Your task to perform on an android device: make emails show in primary in the gmail app Image 0: 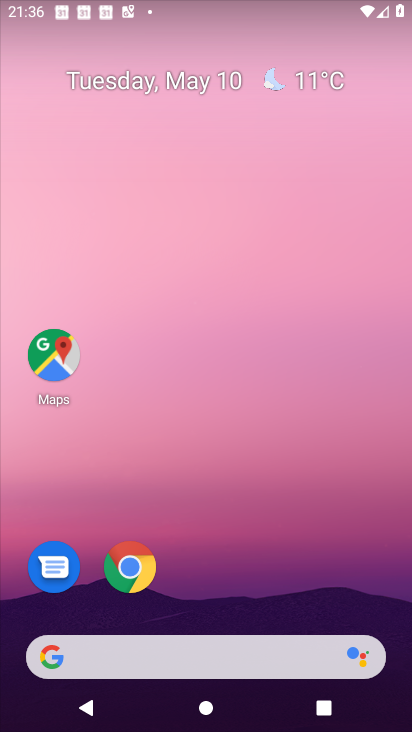
Step 0: drag from (219, 512) to (252, 286)
Your task to perform on an android device: make emails show in primary in the gmail app Image 1: 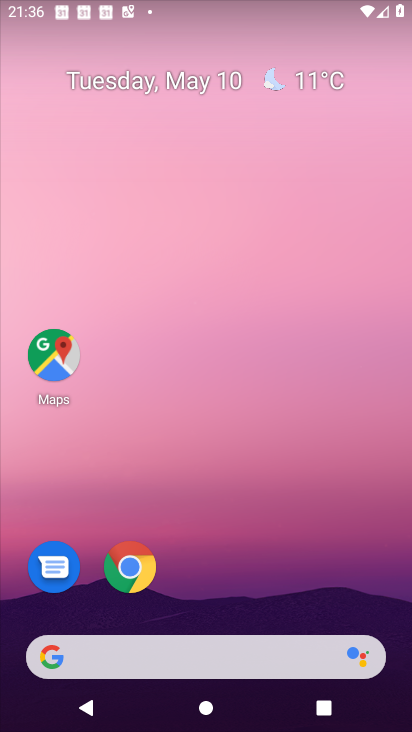
Step 1: drag from (212, 588) to (228, 276)
Your task to perform on an android device: make emails show in primary in the gmail app Image 2: 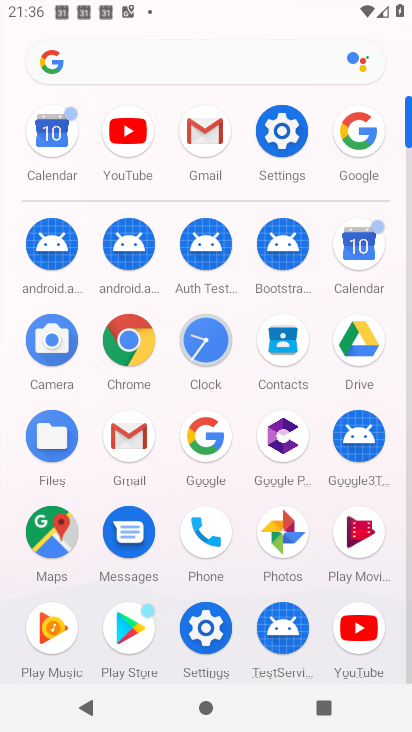
Step 2: click (206, 131)
Your task to perform on an android device: make emails show in primary in the gmail app Image 3: 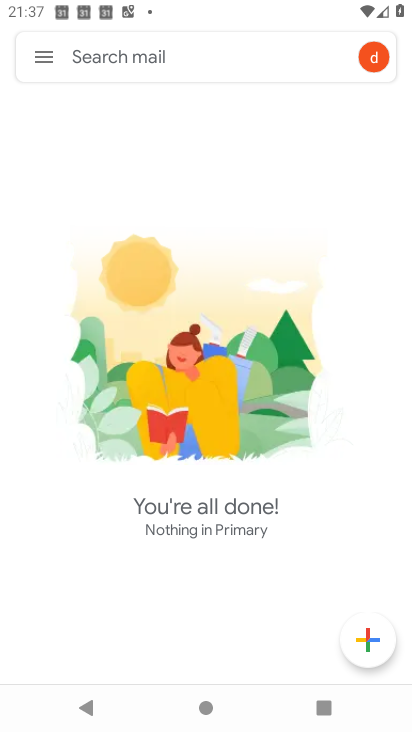
Step 3: click (39, 62)
Your task to perform on an android device: make emails show in primary in the gmail app Image 4: 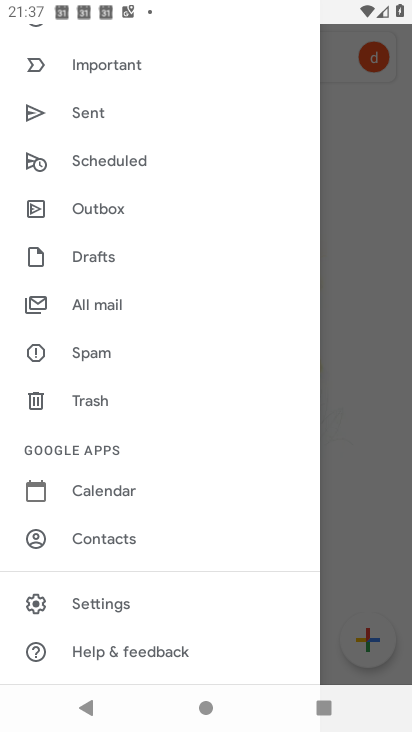
Step 4: click (105, 604)
Your task to perform on an android device: make emails show in primary in the gmail app Image 5: 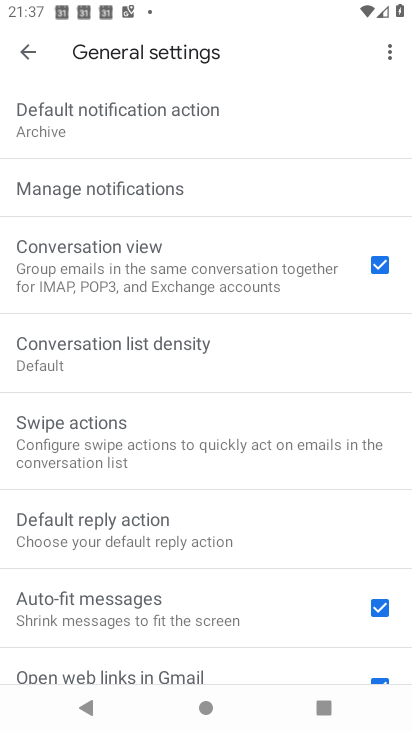
Step 5: click (17, 40)
Your task to perform on an android device: make emails show in primary in the gmail app Image 6: 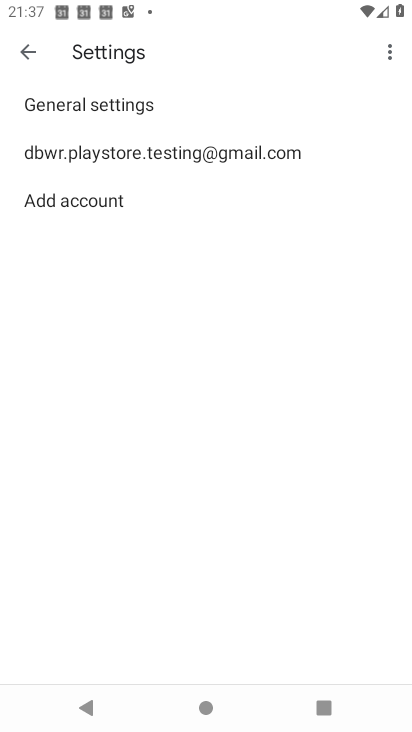
Step 6: click (73, 151)
Your task to perform on an android device: make emails show in primary in the gmail app Image 7: 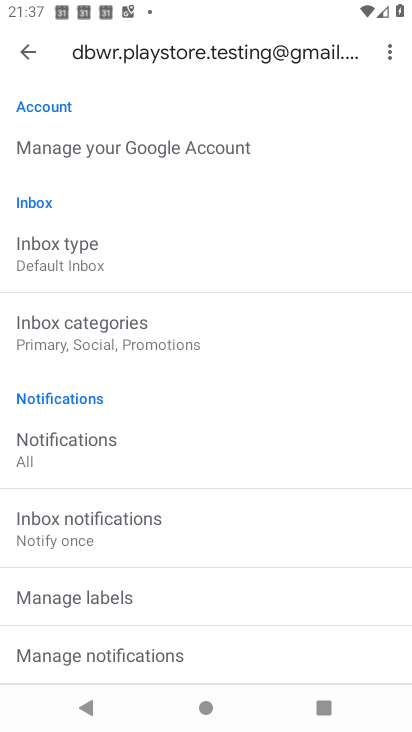
Step 7: click (49, 266)
Your task to perform on an android device: make emails show in primary in the gmail app Image 8: 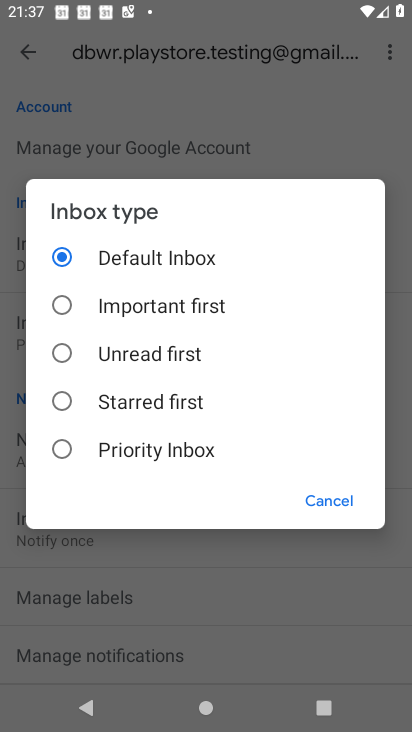
Step 8: click (337, 502)
Your task to perform on an android device: make emails show in primary in the gmail app Image 9: 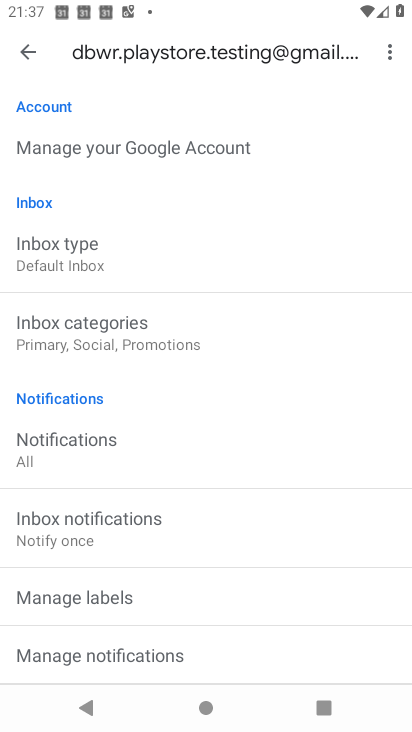
Step 9: click (91, 326)
Your task to perform on an android device: make emails show in primary in the gmail app Image 10: 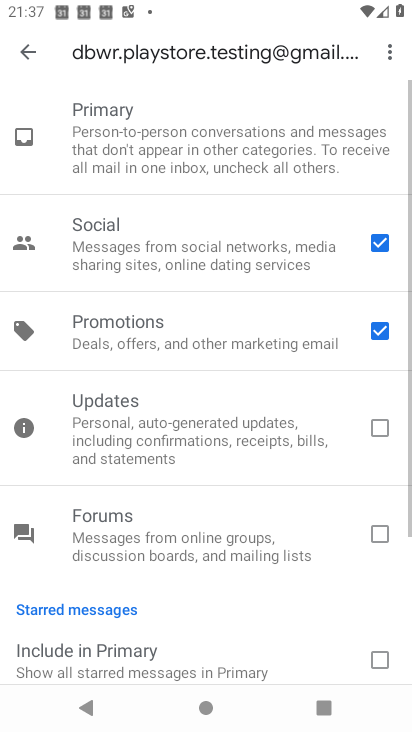
Step 10: click (383, 326)
Your task to perform on an android device: make emails show in primary in the gmail app Image 11: 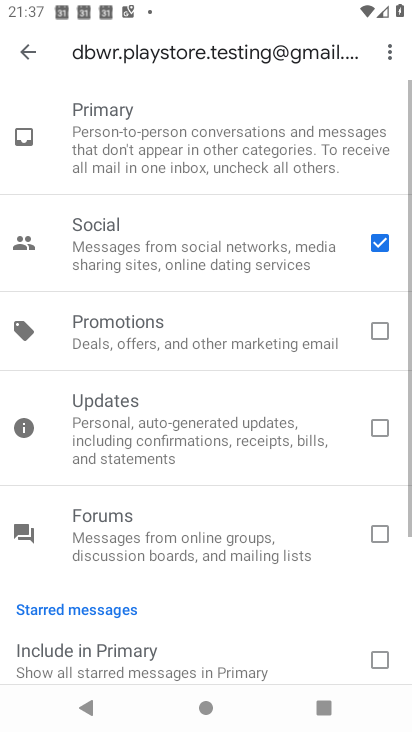
Step 11: click (375, 245)
Your task to perform on an android device: make emails show in primary in the gmail app Image 12: 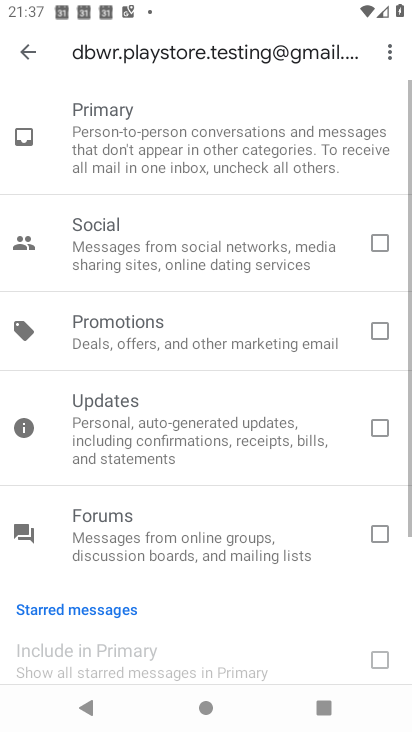
Step 12: click (35, 59)
Your task to perform on an android device: make emails show in primary in the gmail app Image 13: 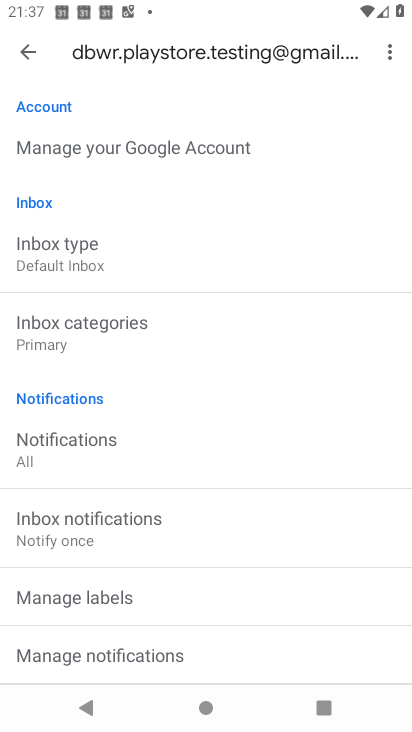
Step 13: task complete